Your task to perform on an android device: set an alarm Image 0: 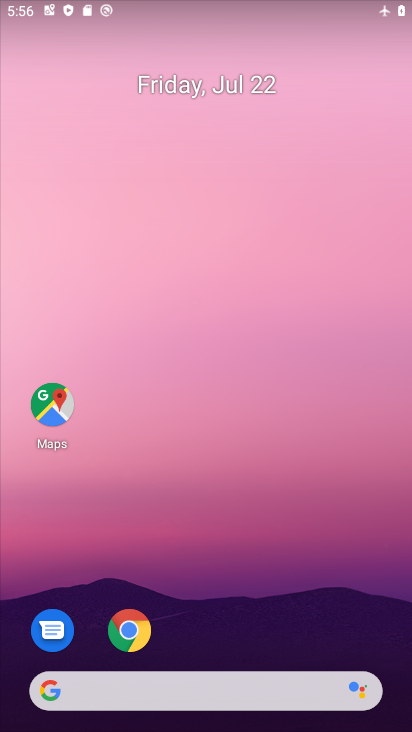
Step 0: drag from (242, 685) to (227, 30)
Your task to perform on an android device: set an alarm Image 1: 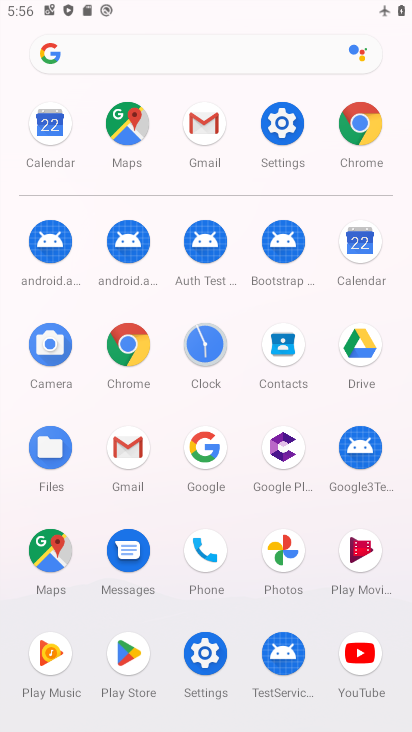
Step 1: click (208, 345)
Your task to perform on an android device: set an alarm Image 2: 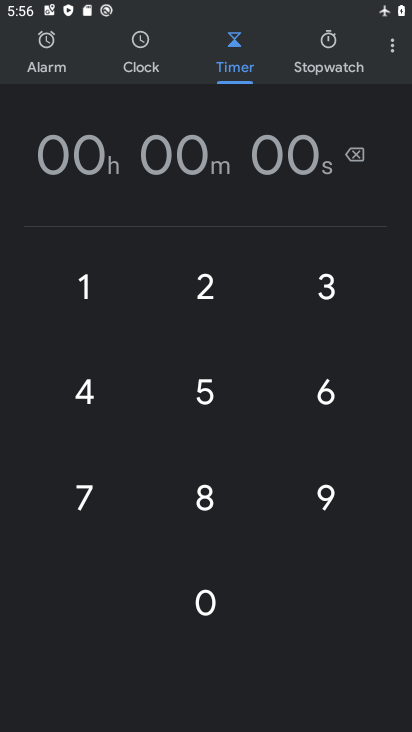
Step 2: click (35, 38)
Your task to perform on an android device: set an alarm Image 3: 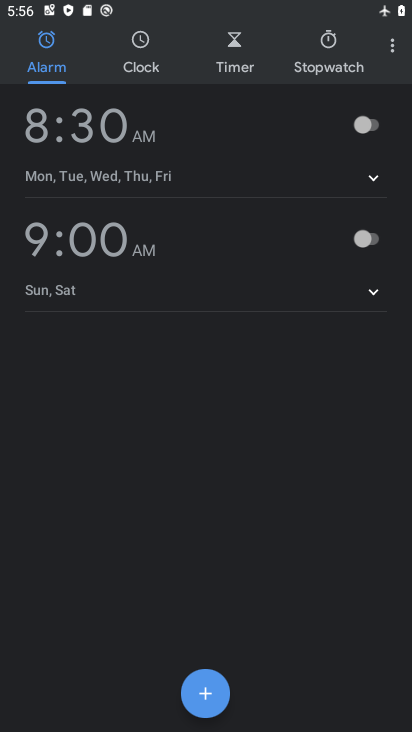
Step 3: click (361, 124)
Your task to perform on an android device: set an alarm Image 4: 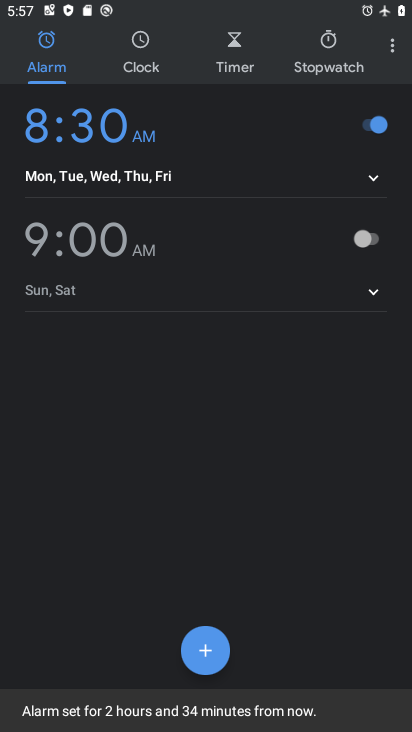
Step 4: task complete